Your task to perform on an android device: Go to Google maps Image 0: 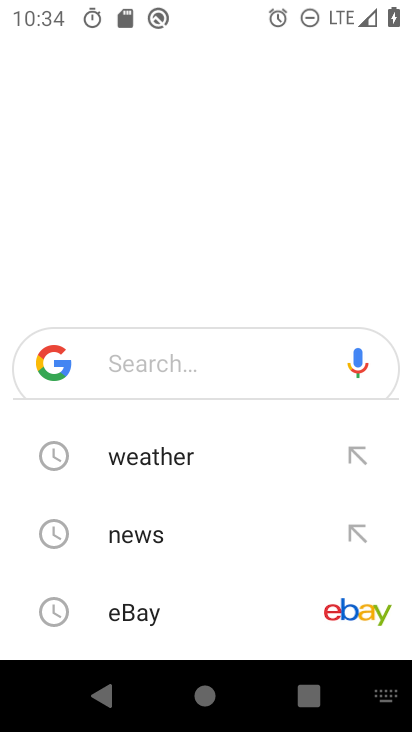
Step 0: press home button
Your task to perform on an android device: Go to Google maps Image 1: 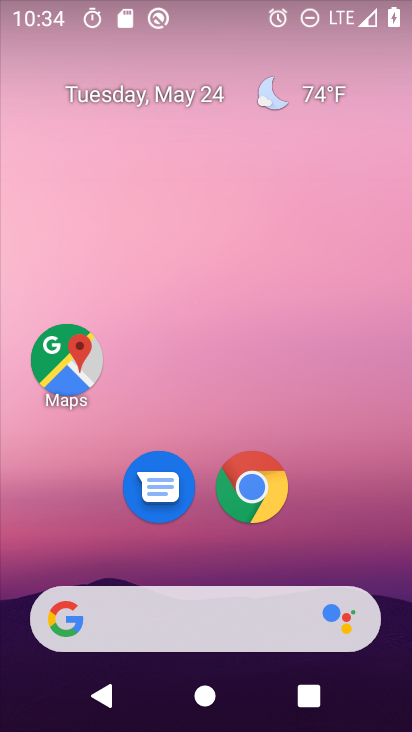
Step 1: click (63, 376)
Your task to perform on an android device: Go to Google maps Image 2: 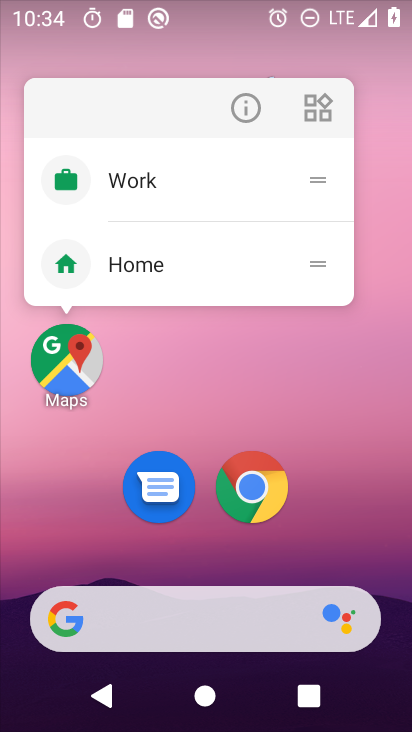
Step 2: click (63, 376)
Your task to perform on an android device: Go to Google maps Image 3: 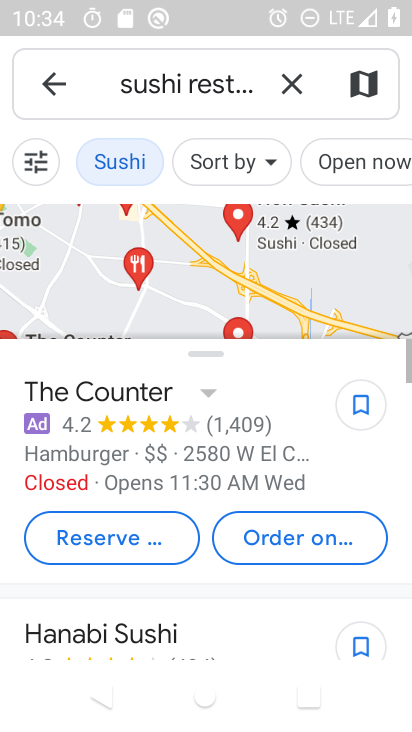
Step 3: task complete